Your task to perform on an android device: move a message to another label in the gmail app Image 0: 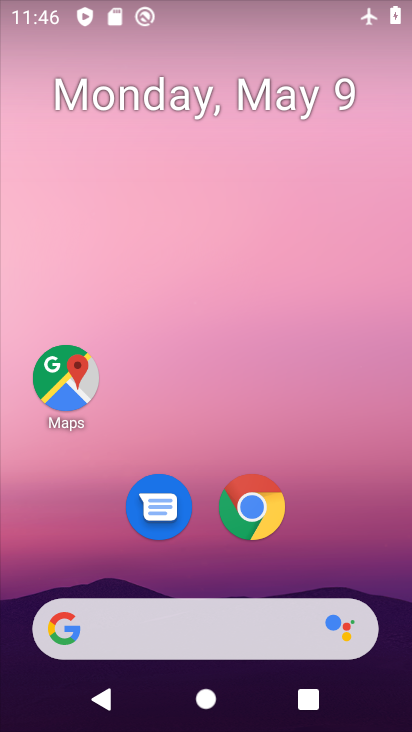
Step 0: drag from (318, 543) to (312, 196)
Your task to perform on an android device: move a message to another label in the gmail app Image 1: 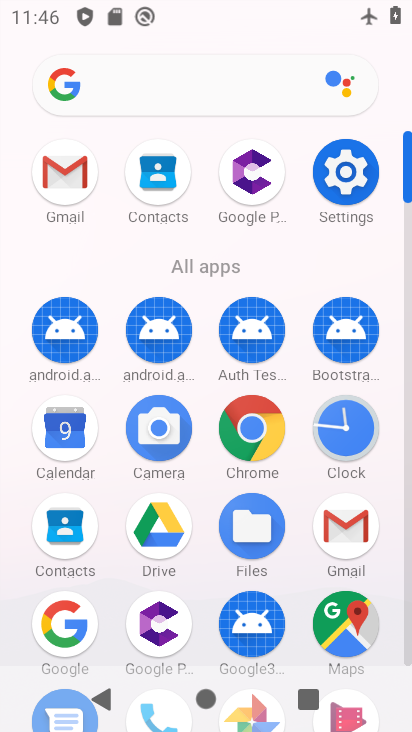
Step 1: click (355, 520)
Your task to perform on an android device: move a message to another label in the gmail app Image 2: 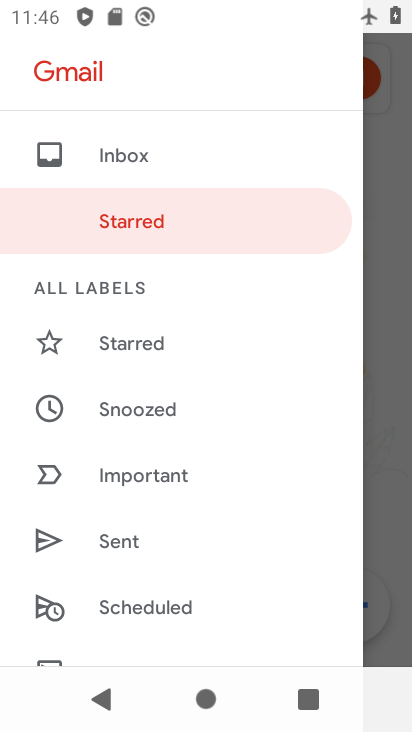
Step 2: drag from (181, 571) to (166, 320)
Your task to perform on an android device: move a message to another label in the gmail app Image 3: 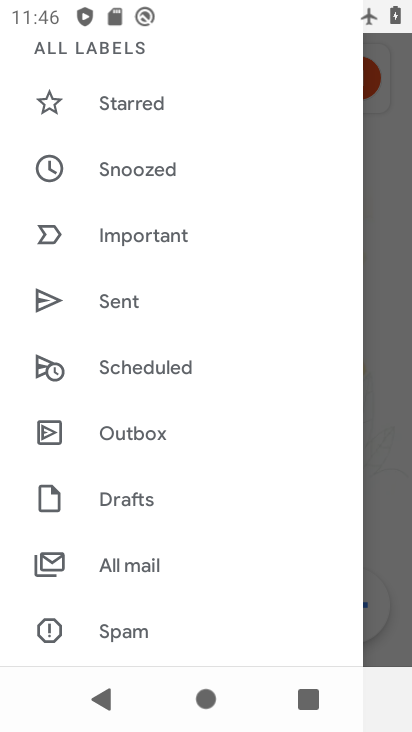
Step 3: click (154, 555)
Your task to perform on an android device: move a message to another label in the gmail app Image 4: 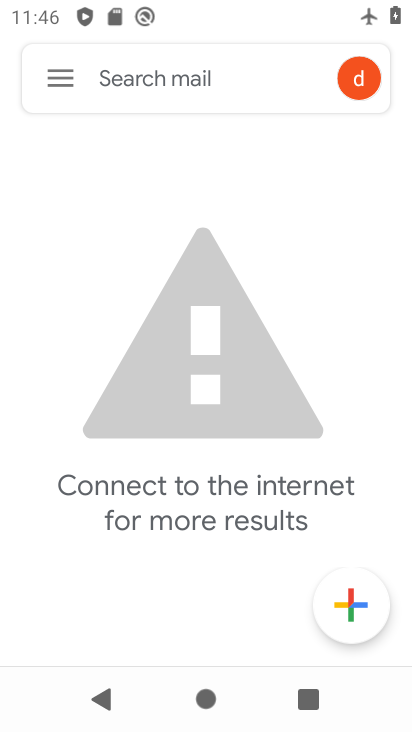
Step 4: task complete